Your task to perform on an android device: Open sound settings Image 0: 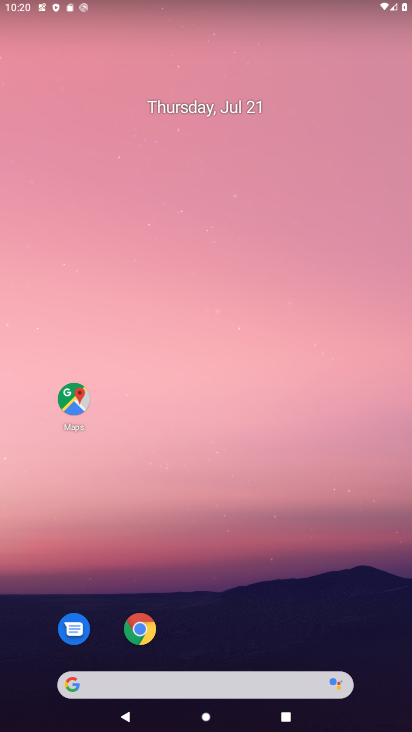
Step 0: drag from (269, 537) to (299, 182)
Your task to perform on an android device: Open sound settings Image 1: 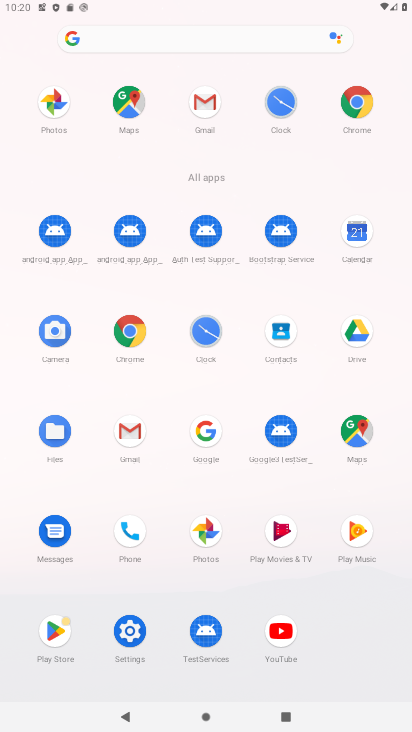
Step 1: click (133, 632)
Your task to perform on an android device: Open sound settings Image 2: 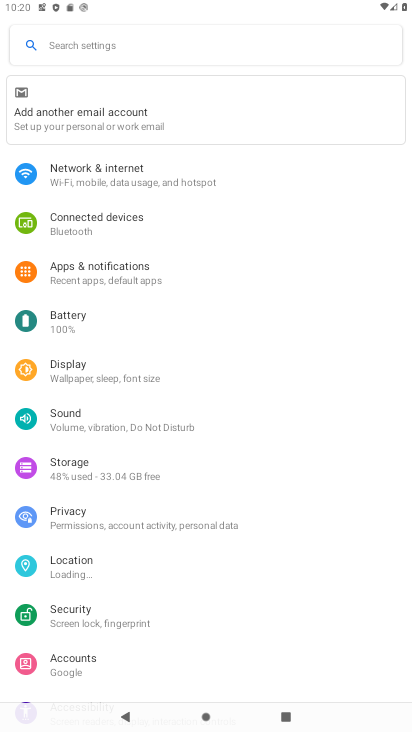
Step 2: click (75, 417)
Your task to perform on an android device: Open sound settings Image 3: 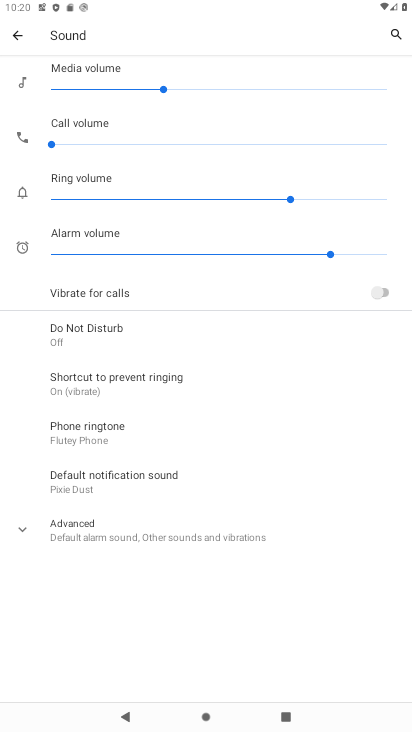
Step 3: task complete